Your task to perform on an android device: uninstall "Microsoft Authenticator" Image 0: 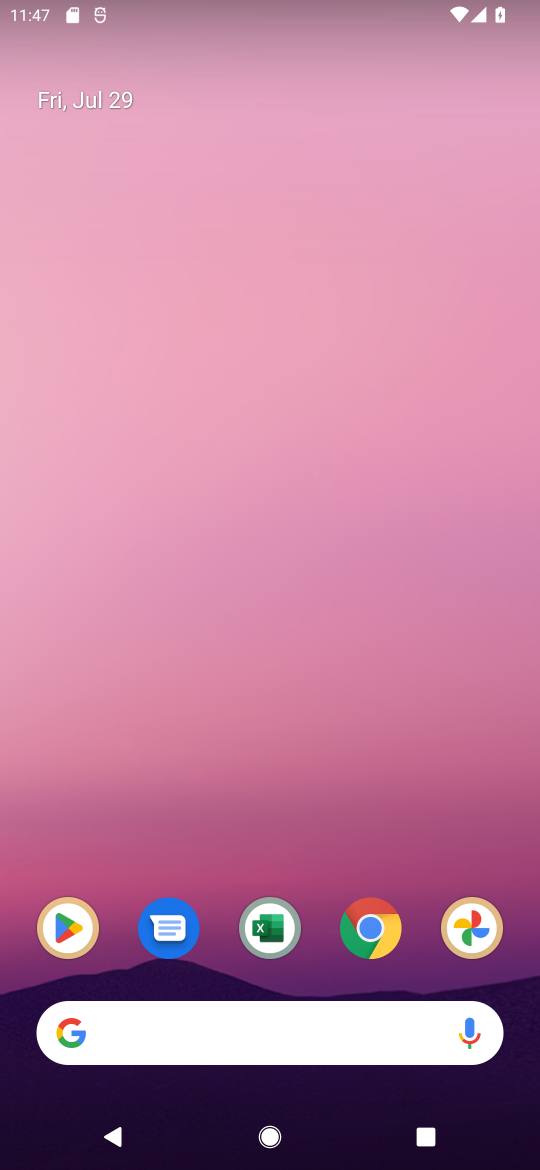
Step 0: drag from (506, 1001) to (416, 134)
Your task to perform on an android device: uninstall "Microsoft Authenticator" Image 1: 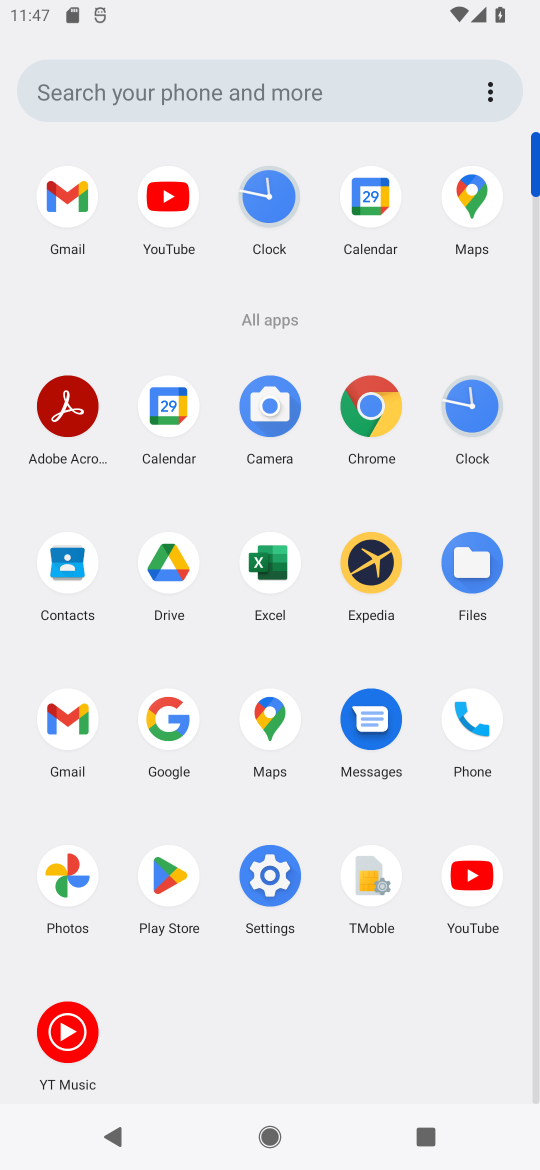
Step 1: click (176, 886)
Your task to perform on an android device: uninstall "Microsoft Authenticator" Image 2: 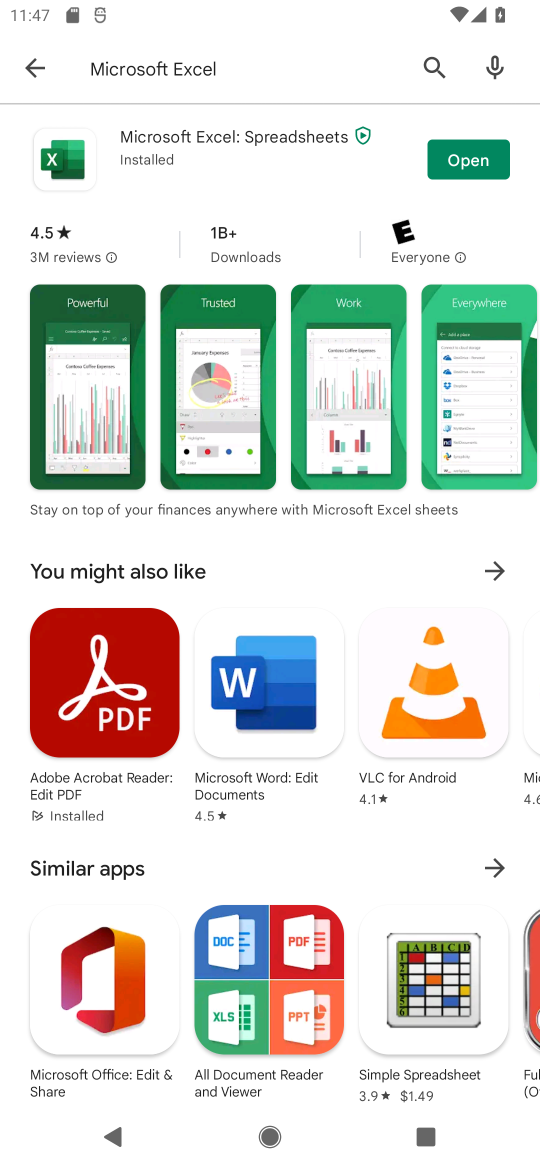
Step 2: click (280, 64)
Your task to perform on an android device: uninstall "Microsoft Authenticator" Image 3: 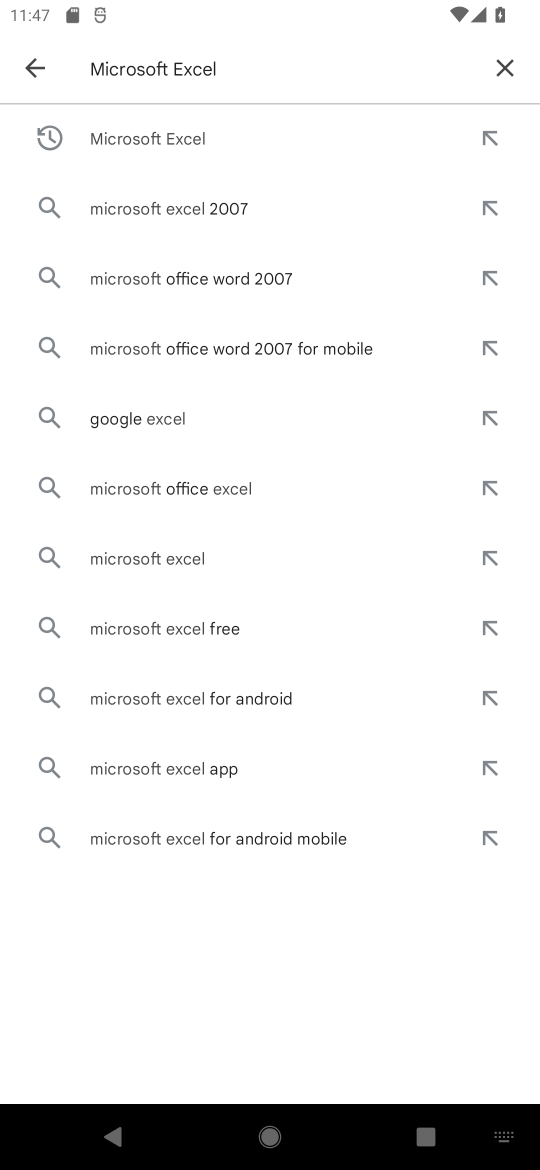
Step 3: click (509, 62)
Your task to perform on an android device: uninstall "Microsoft Authenticator" Image 4: 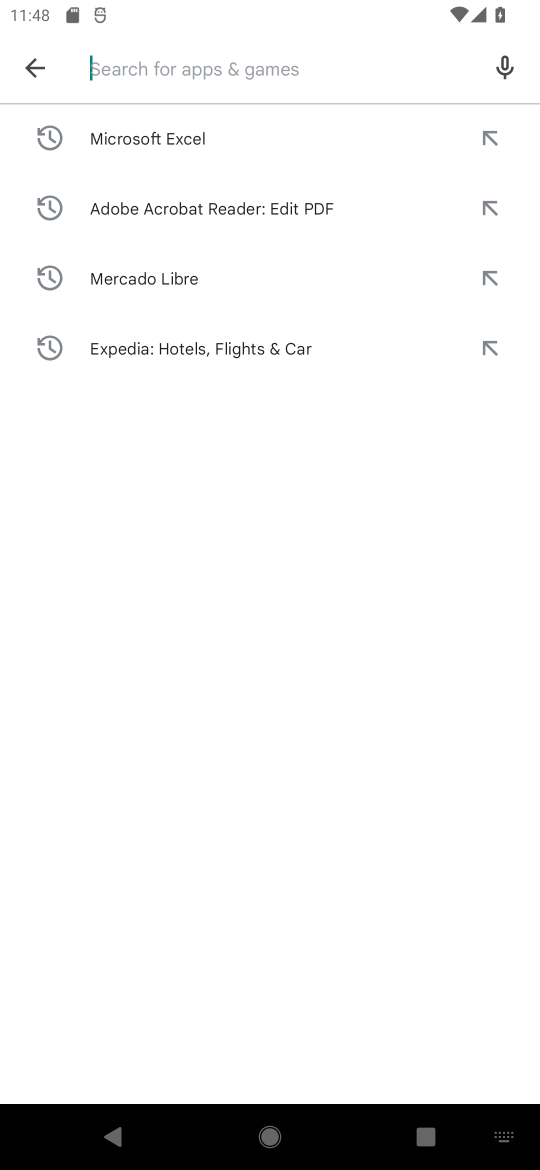
Step 4: type "Microsoft Authenticator"
Your task to perform on an android device: uninstall "Microsoft Authenticator" Image 5: 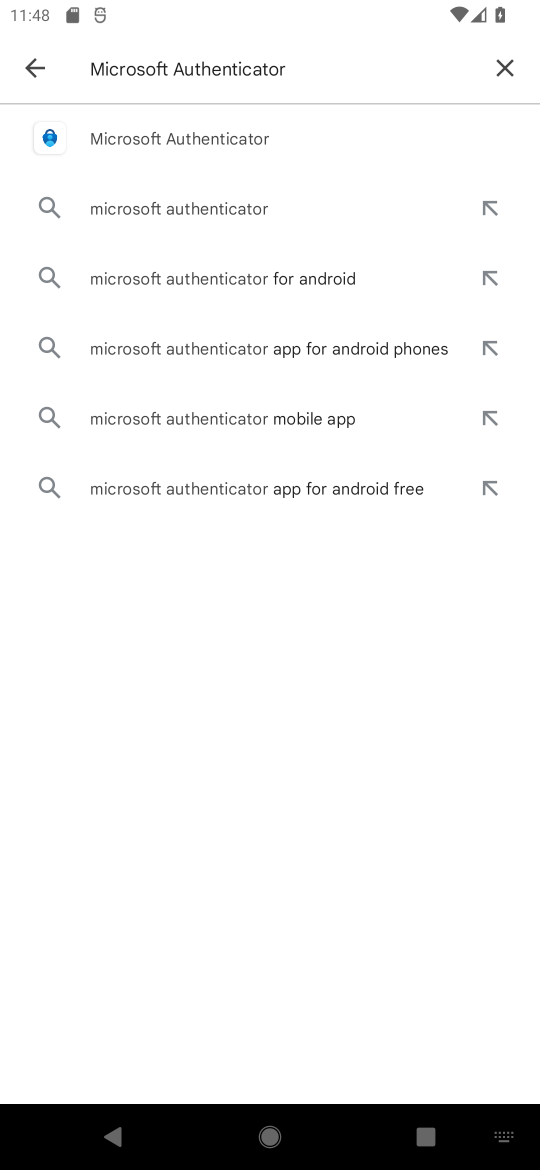
Step 5: press enter
Your task to perform on an android device: uninstall "Microsoft Authenticator" Image 6: 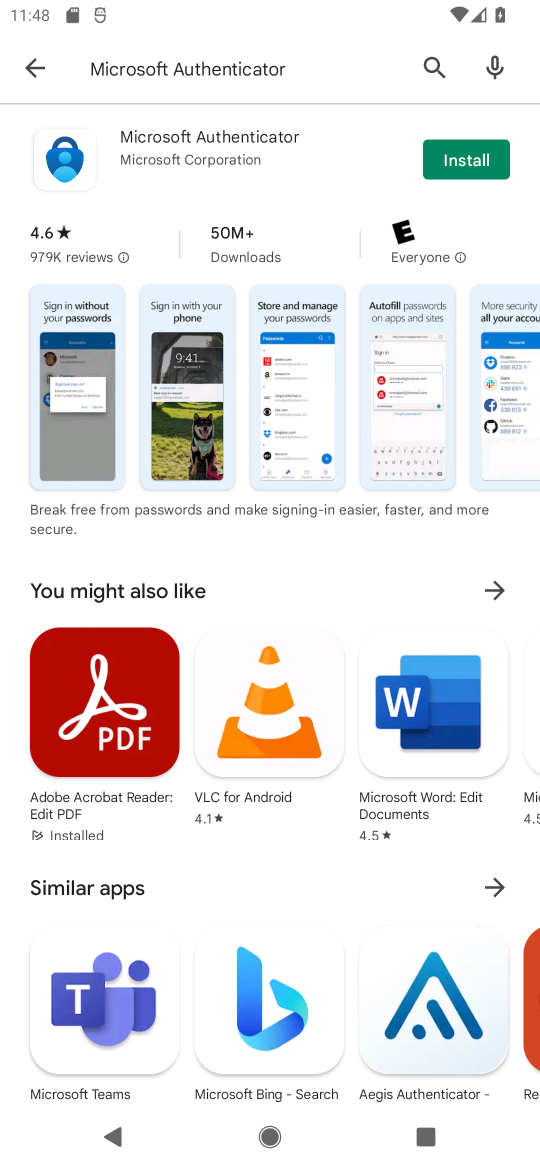
Step 6: task complete